Your task to perform on an android device: What is the price of a 12' ladder at Home Depot? Image 0: 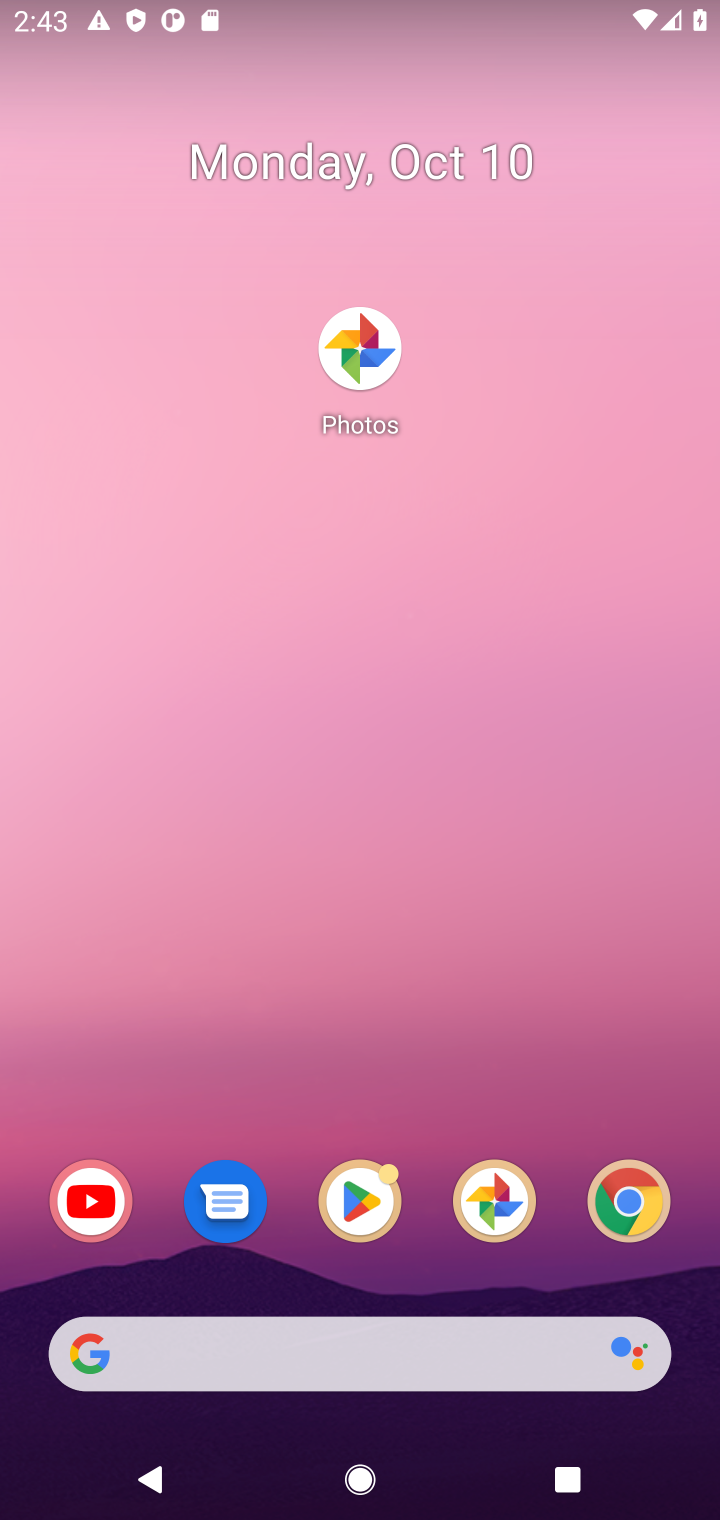
Step 0: click (332, 1377)
Your task to perform on an android device: What is the price of a 12' ladder at Home Depot? Image 1: 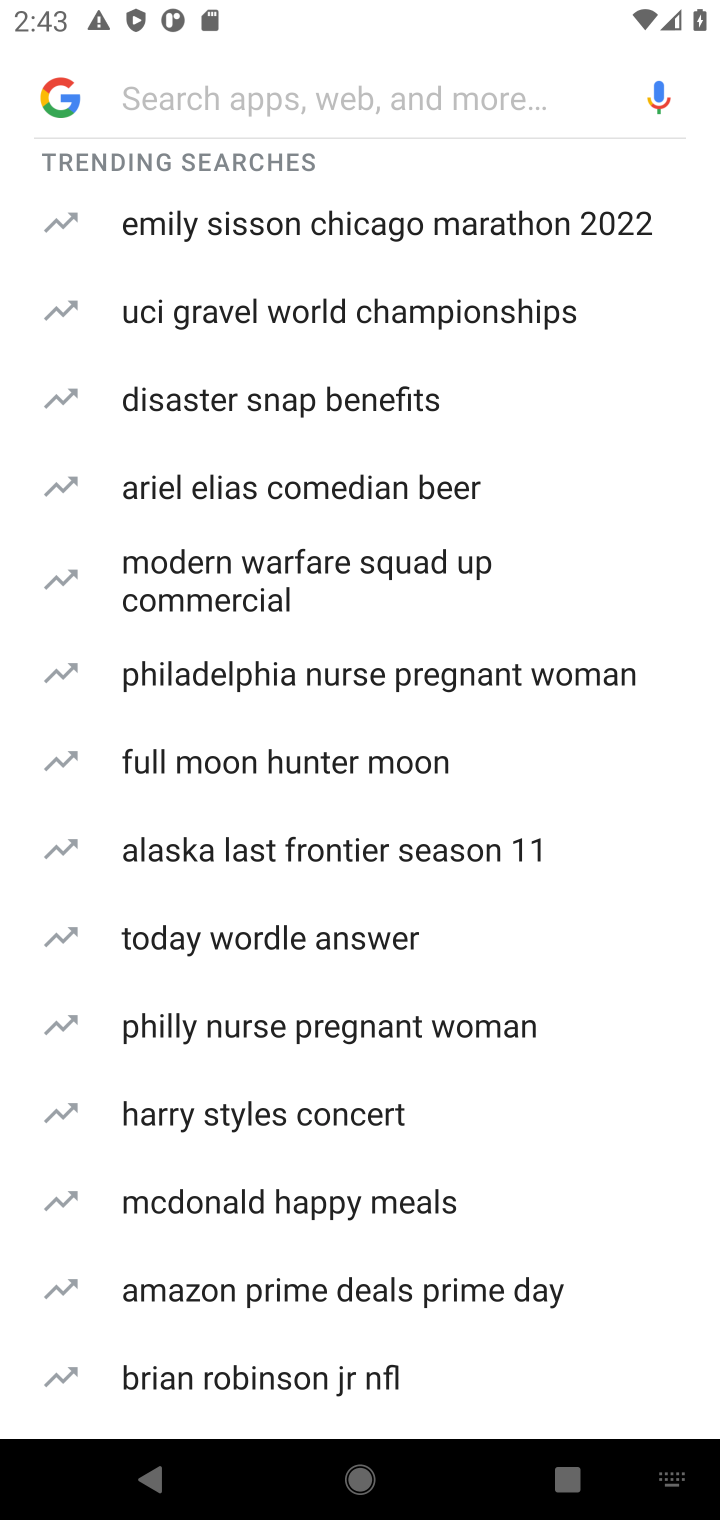
Step 1: type "home depot"
Your task to perform on an android device: What is the price of a 12' ladder at Home Depot? Image 2: 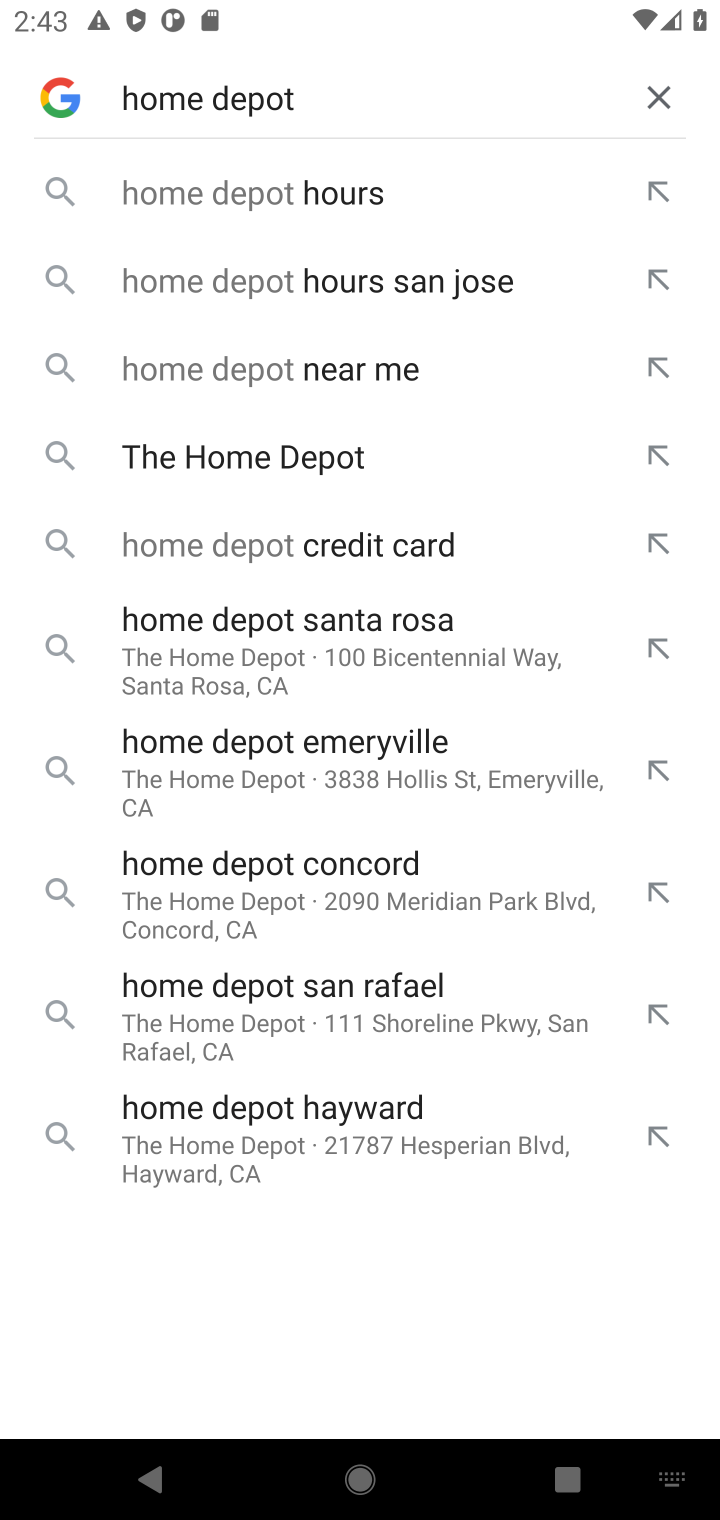
Step 2: click (266, 469)
Your task to perform on an android device: What is the price of a 12' ladder at Home Depot? Image 3: 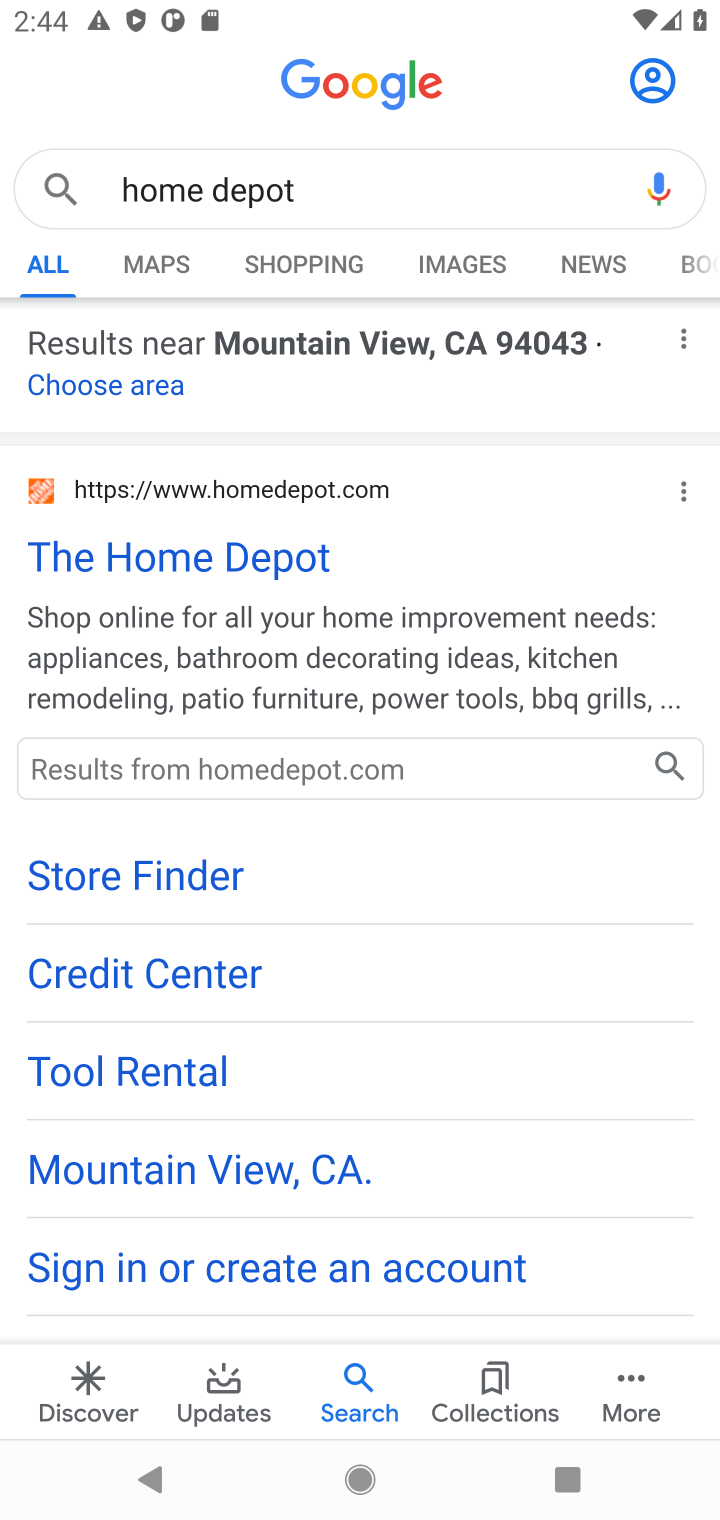
Step 3: click (249, 525)
Your task to perform on an android device: What is the price of a 12' ladder at Home Depot? Image 4: 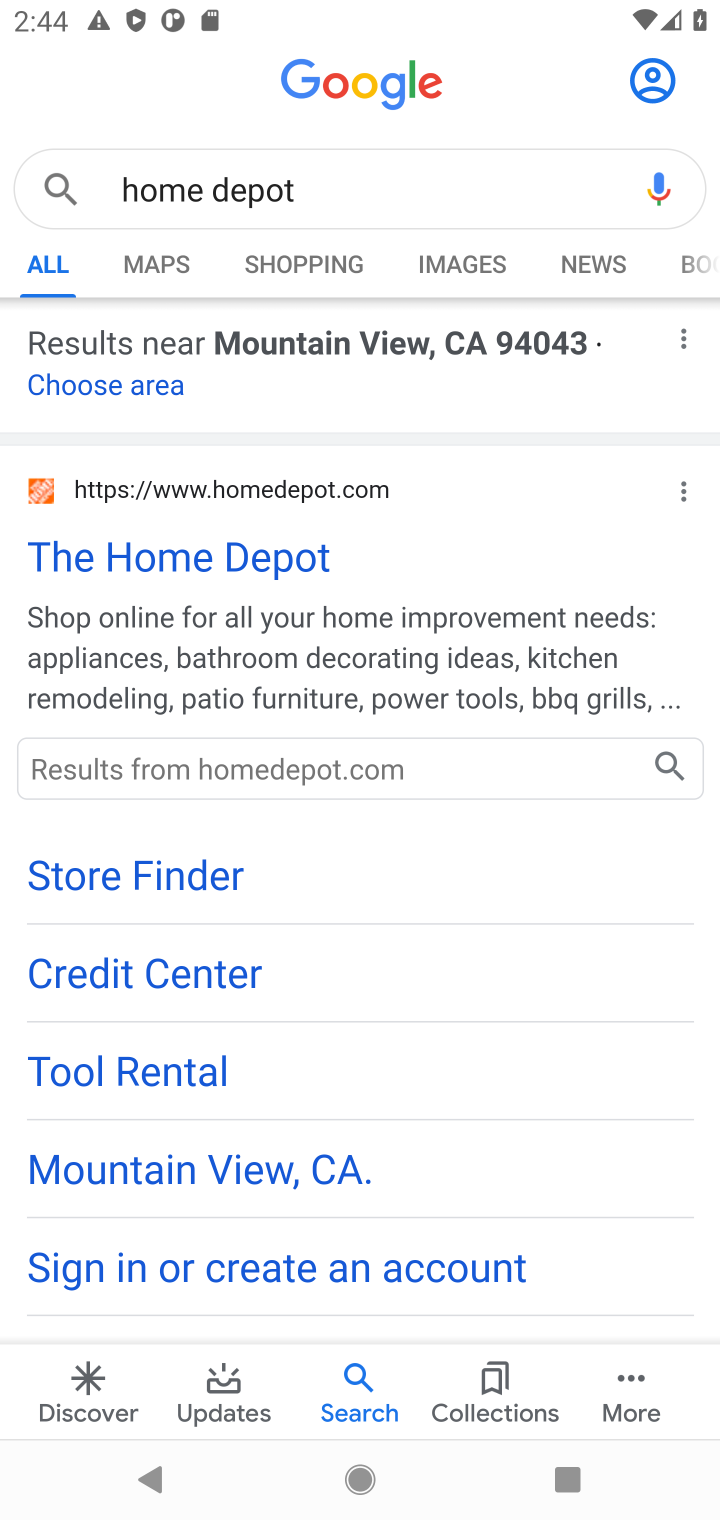
Step 4: click (251, 552)
Your task to perform on an android device: What is the price of a 12' ladder at Home Depot? Image 5: 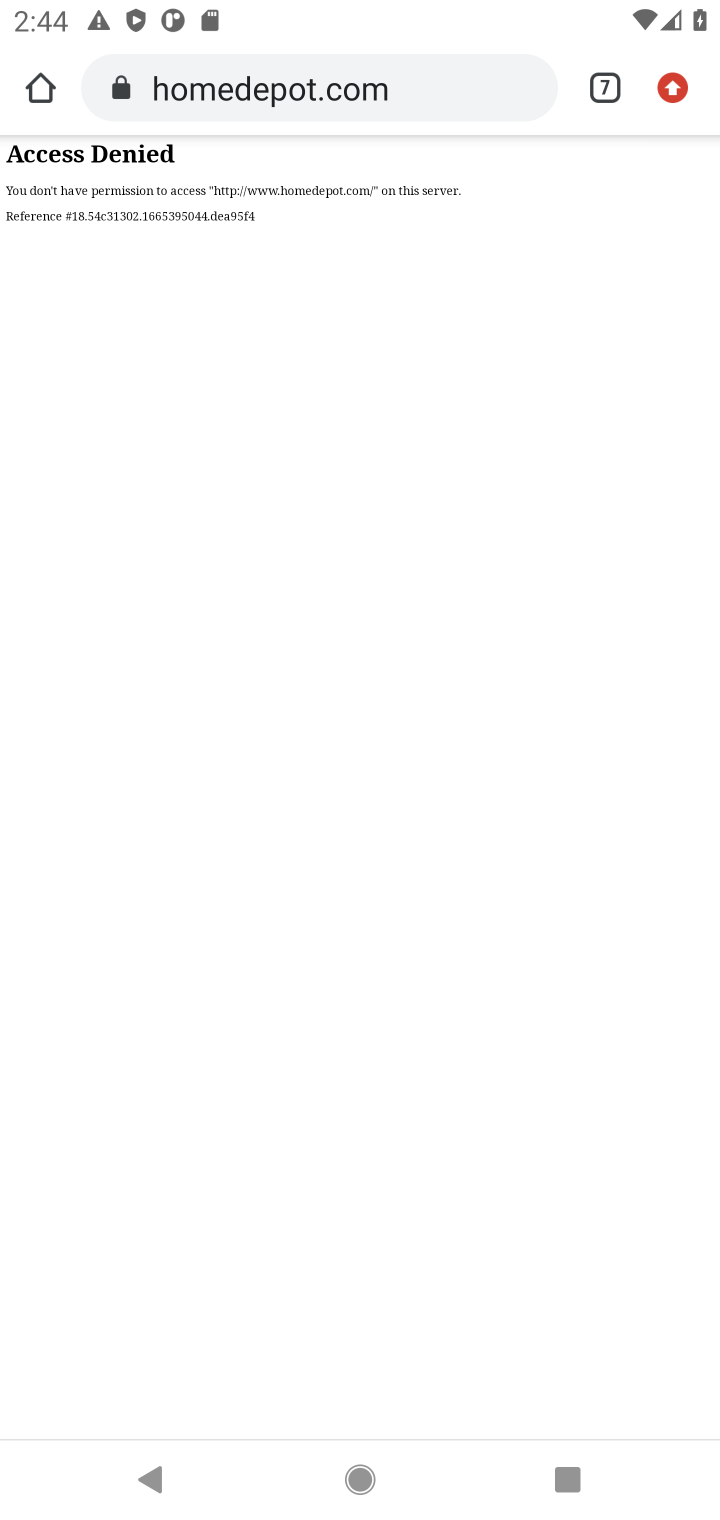
Step 5: press back button
Your task to perform on an android device: What is the price of a 12' ladder at Home Depot? Image 6: 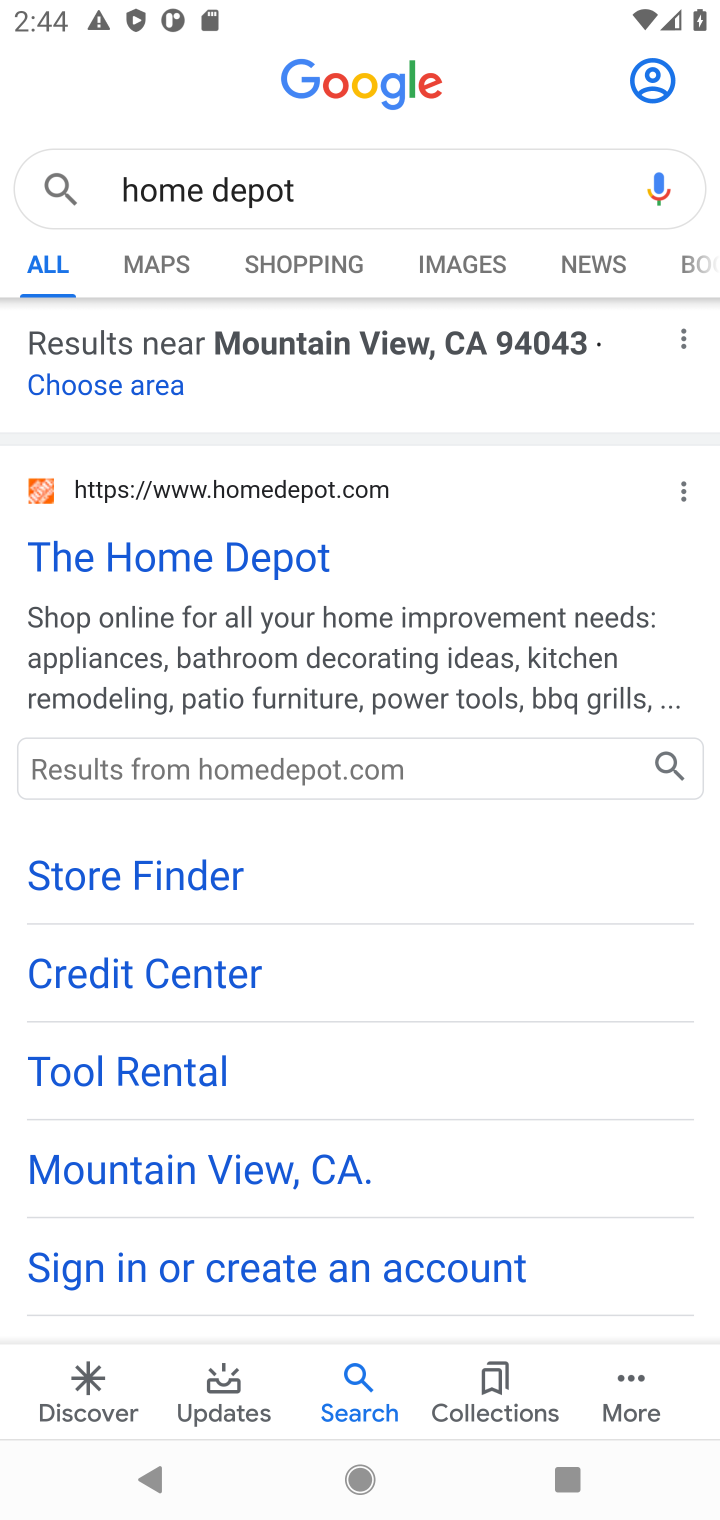
Step 6: drag from (392, 874) to (424, 663)
Your task to perform on an android device: What is the price of a 12' ladder at Home Depot? Image 7: 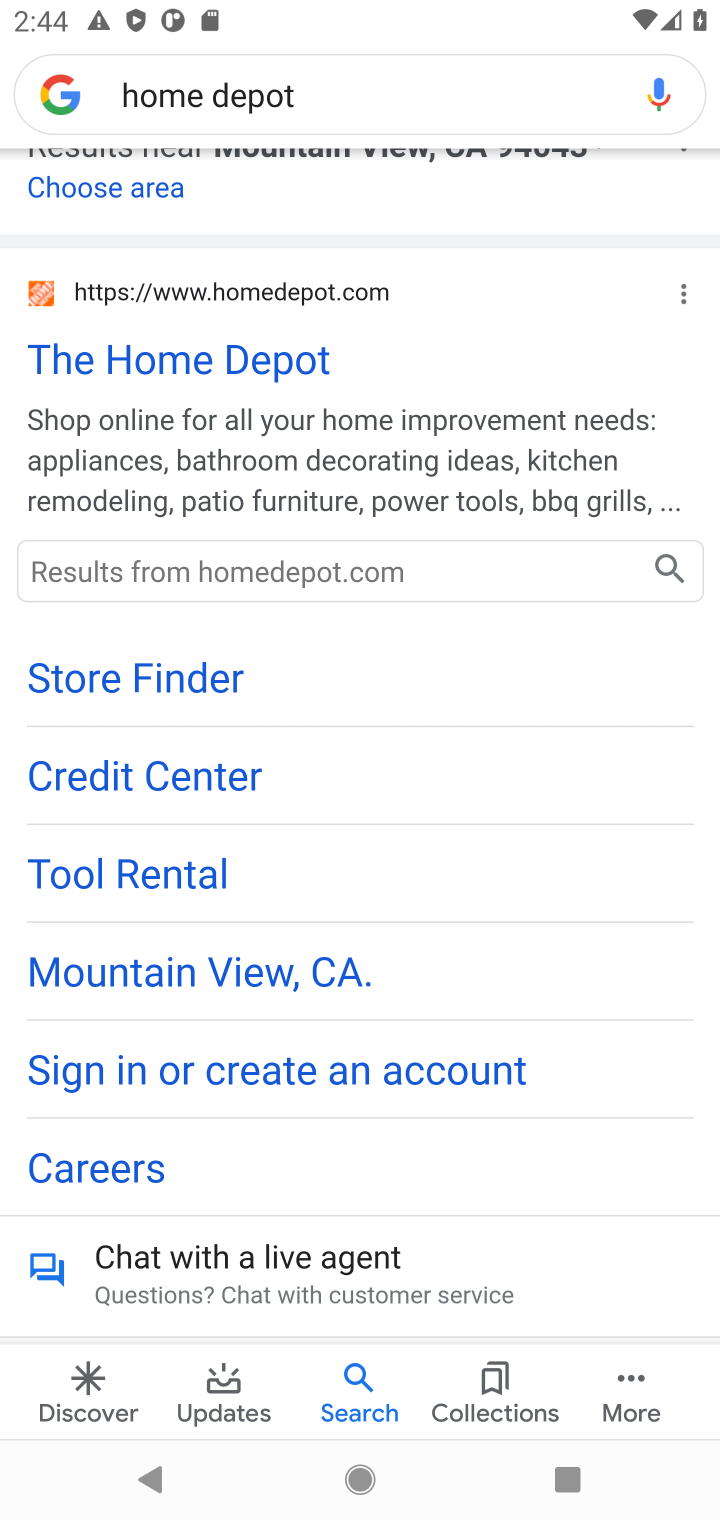
Step 7: drag from (472, 1156) to (509, 688)
Your task to perform on an android device: What is the price of a 12' ladder at Home Depot? Image 8: 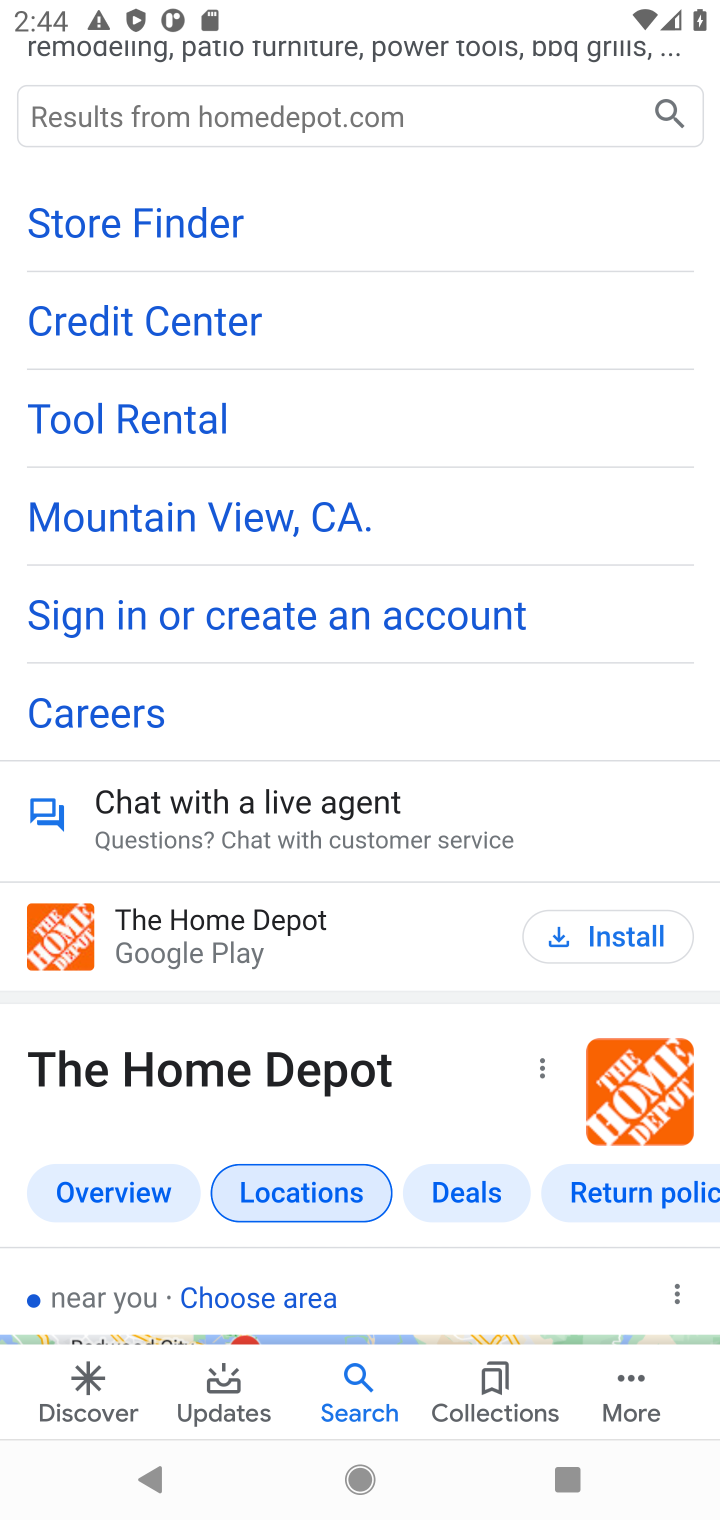
Step 8: drag from (417, 1096) to (426, 393)
Your task to perform on an android device: What is the price of a 12' ladder at Home Depot? Image 9: 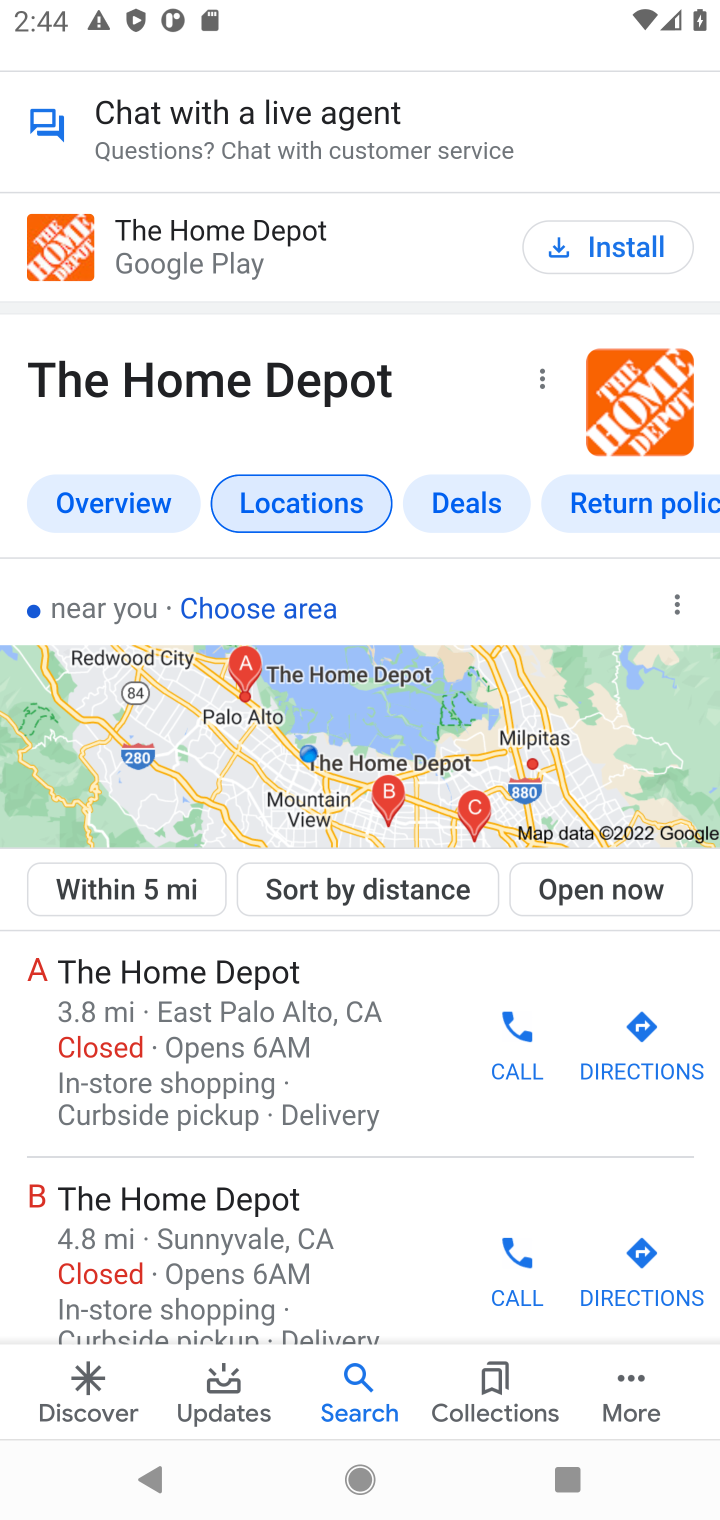
Step 9: drag from (262, 453) to (262, 818)
Your task to perform on an android device: What is the price of a 12' ladder at Home Depot? Image 10: 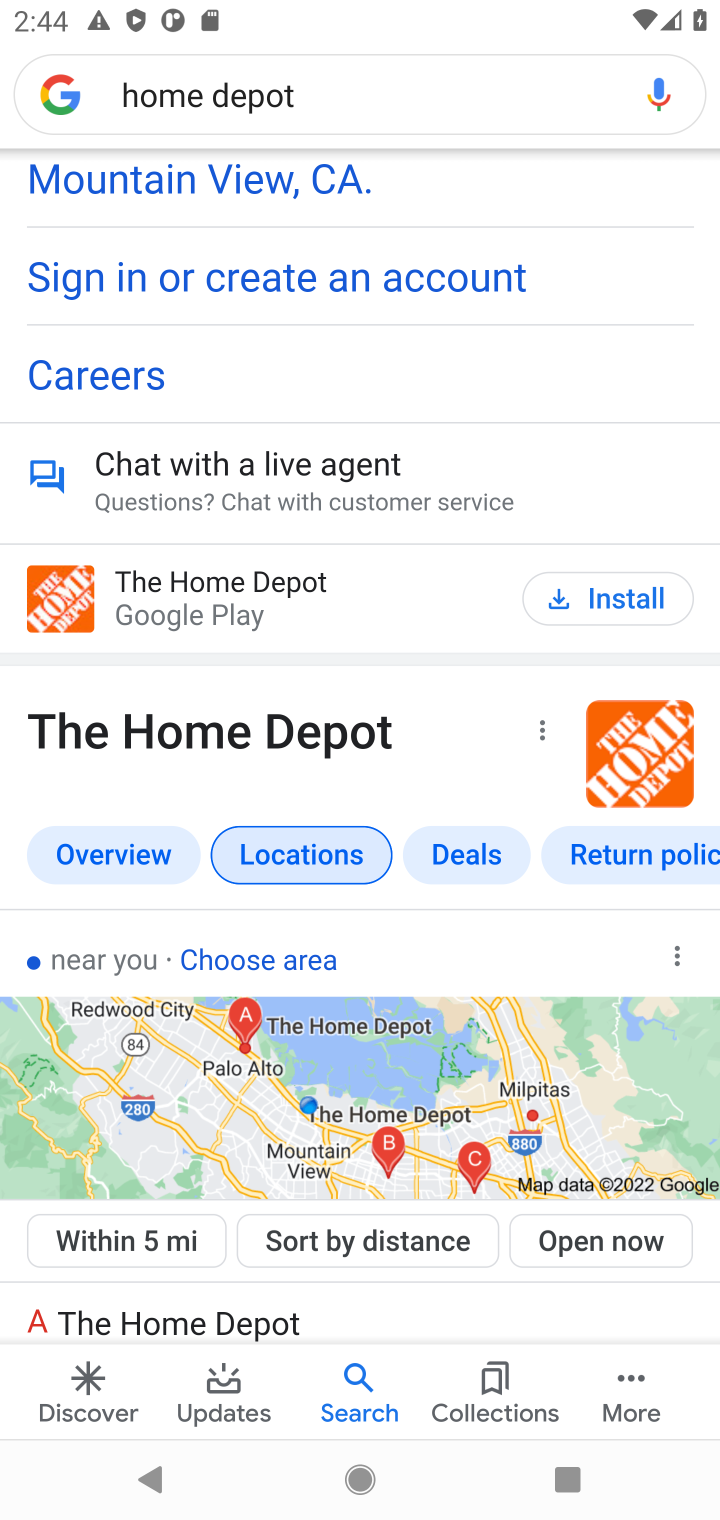
Step 10: click (351, 412)
Your task to perform on an android device: What is the price of a 12' ladder at Home Depot? Image 11: 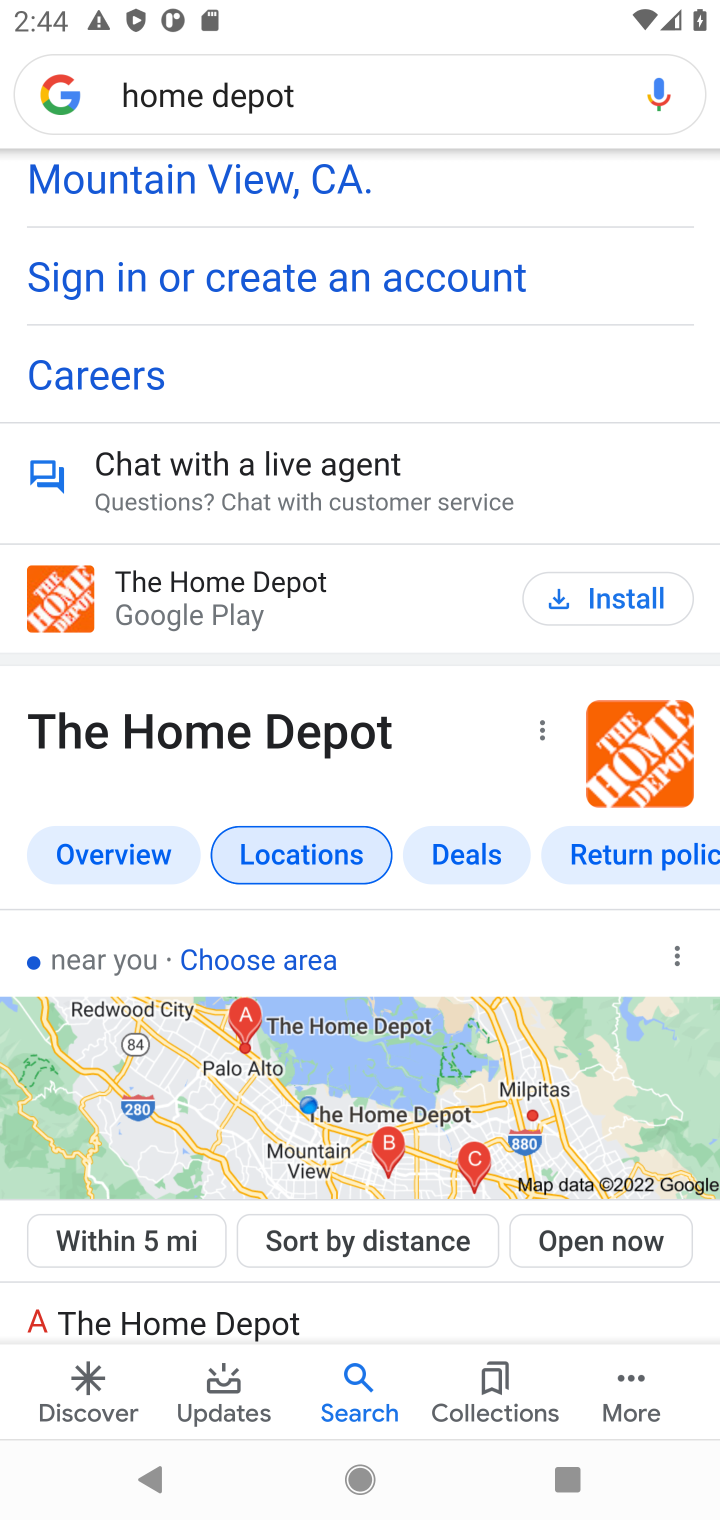
Step 11: click (430, 88)
Your task to perform on an android device: What is the price of a 12' ladder at Home Depot? Image 12: 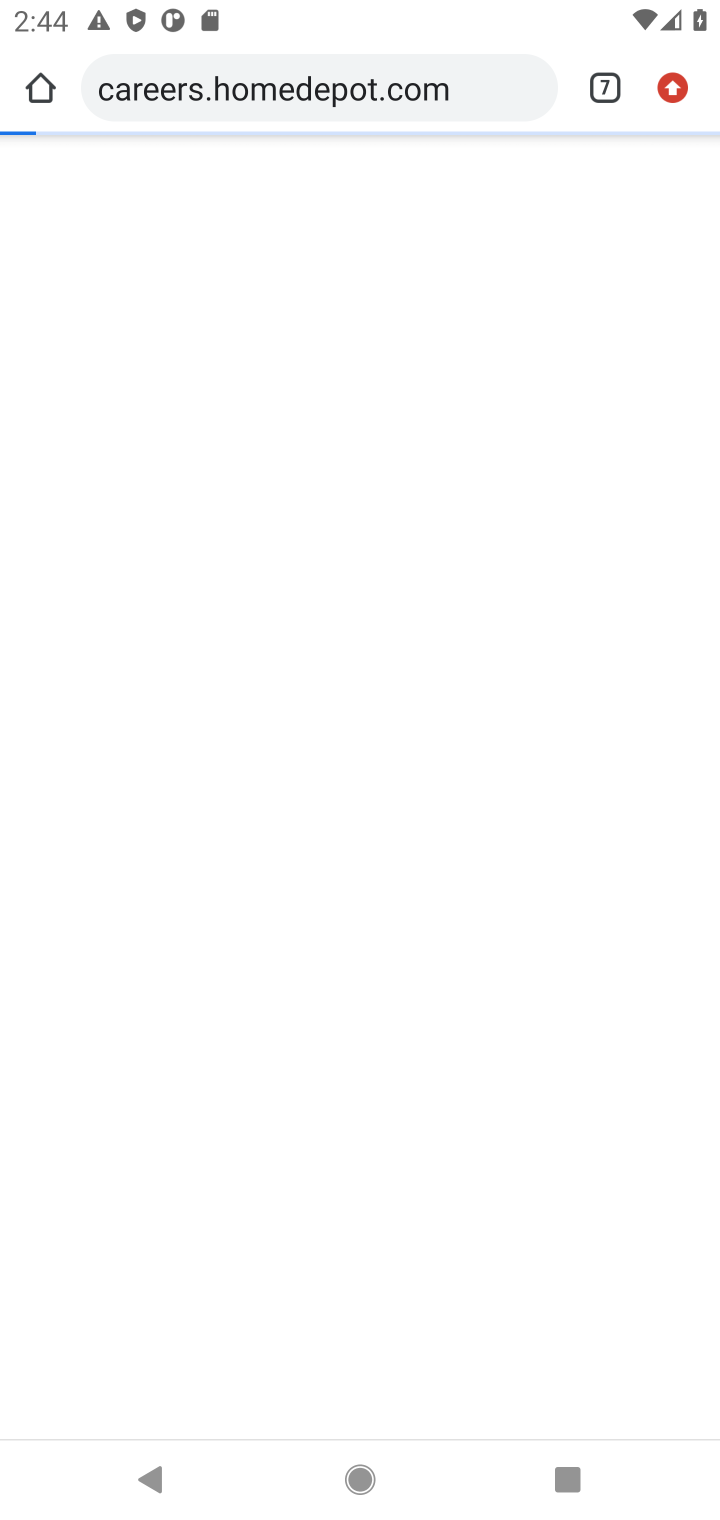
Step 12: click (391, 90)
Your task to perform on an android device: What is the price of a 12' ladder at Home Depot? Image 13: 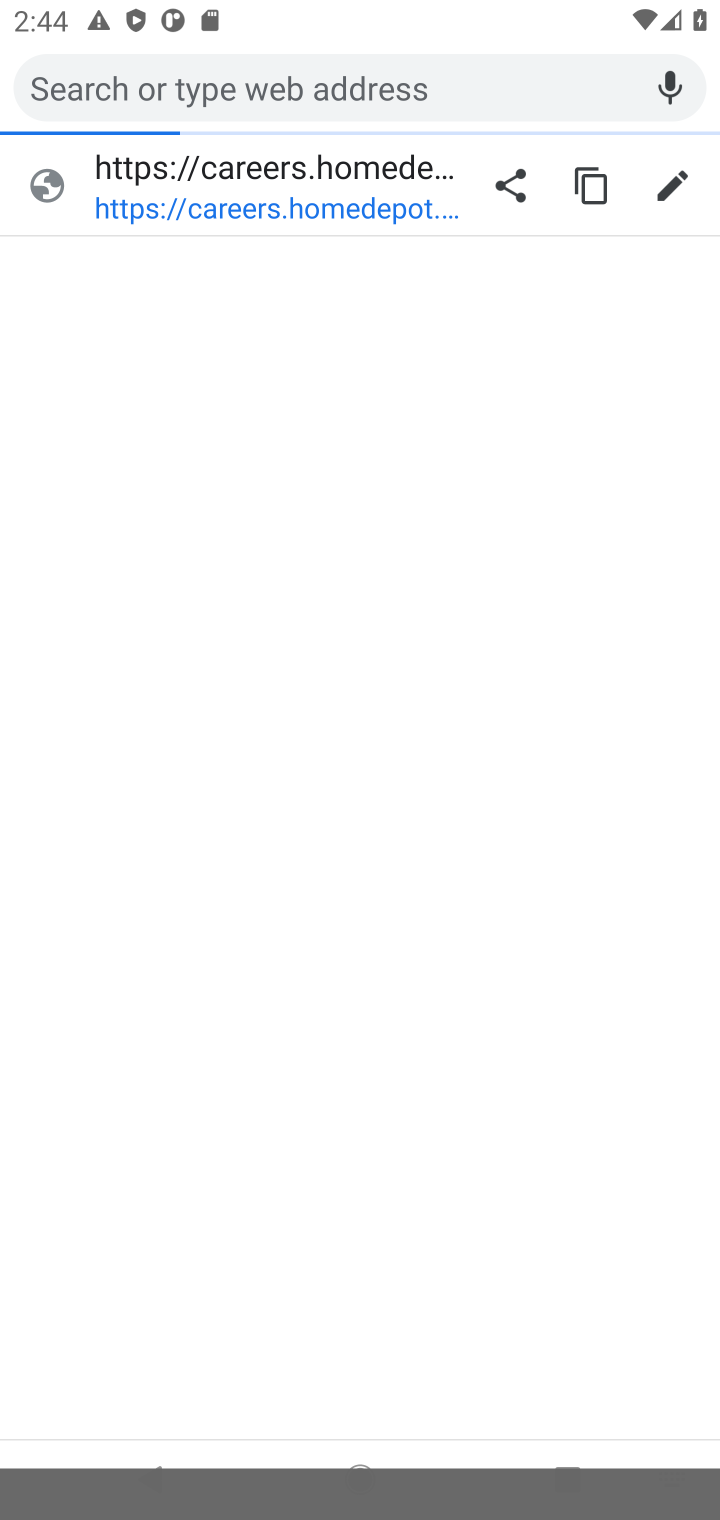
Step 13: click (422, 84)
Your task to perform on an android device: What is the price of a 12' ladder at Home Depot? Image 14: 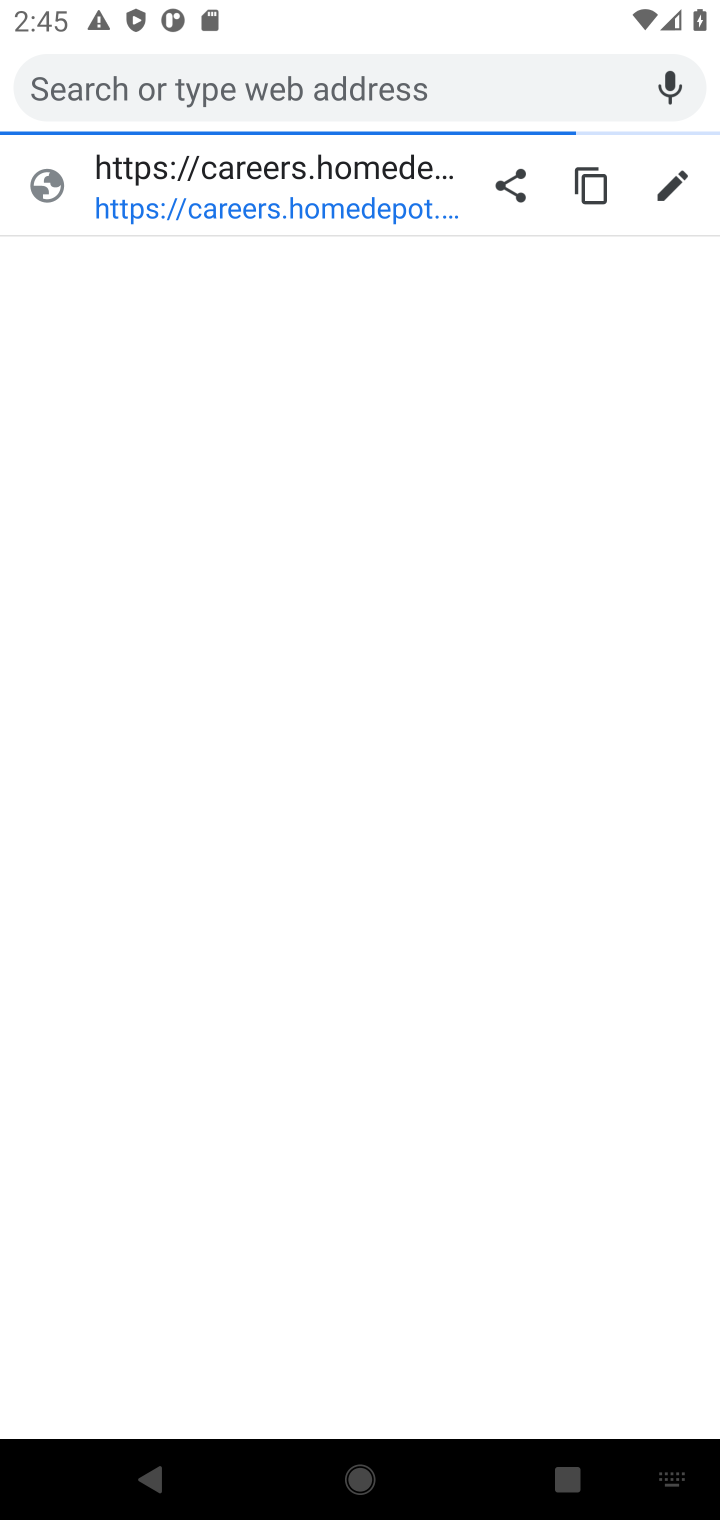
Step 14: click (245, 1518)
Your task to perform on an android device: What is the price of a 12' ladder at Home Depot? Image 15: 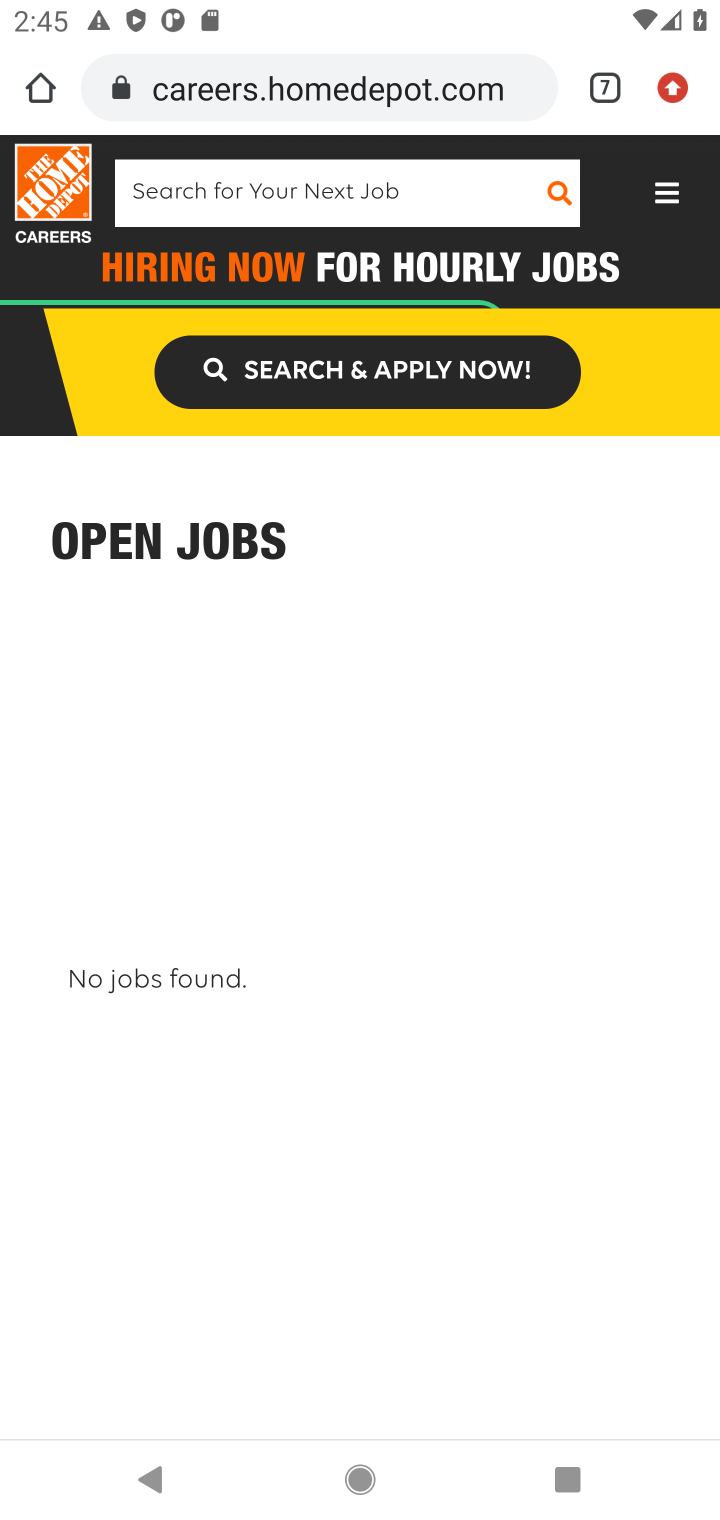
Step 15: type "price of a 12' ladder at Home Depot"
Your task to perform on an android device: What is the price of a 12' ladder at Home Depot? Image 16: 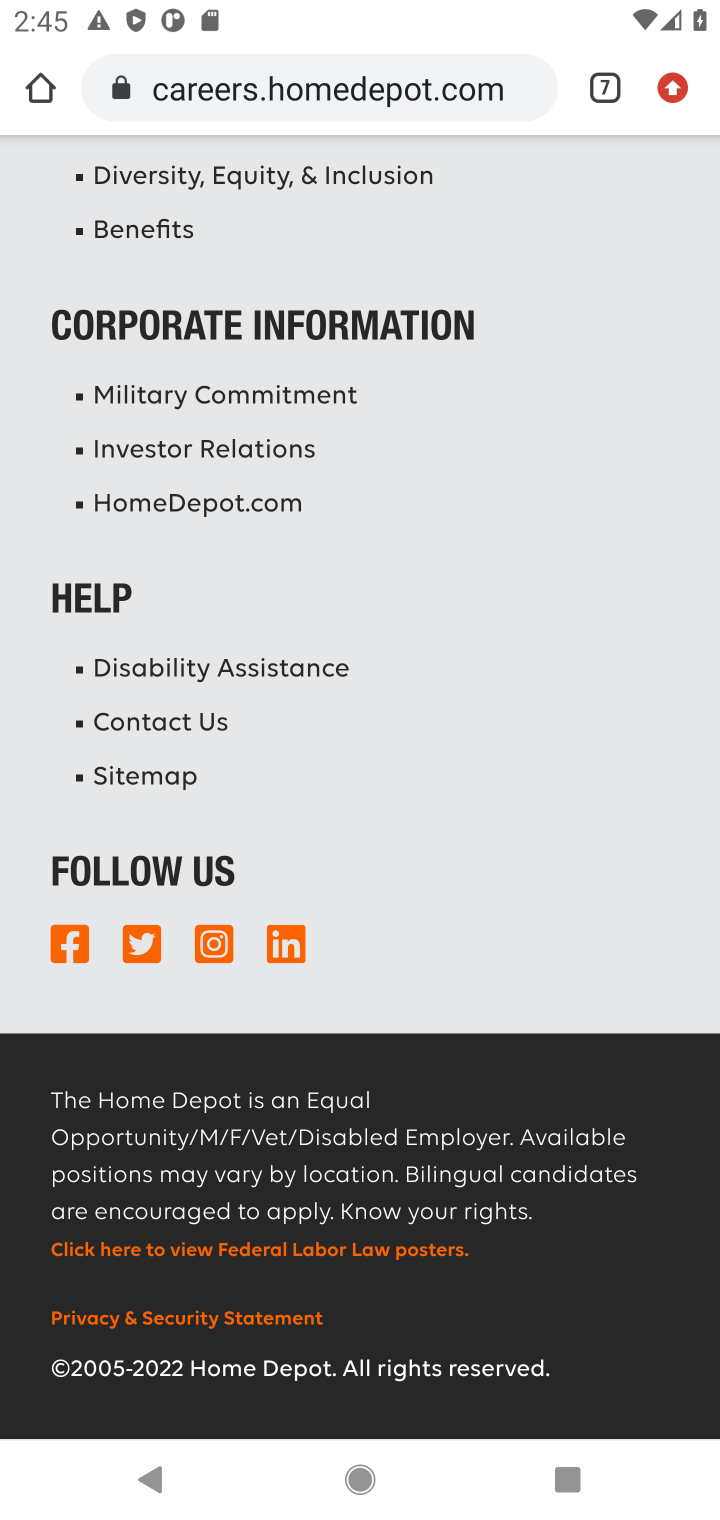
Step 16: click (299, 89)
Your task to perform on an android device: What is the price of a 12' ladder at Home Depot? Image 17: 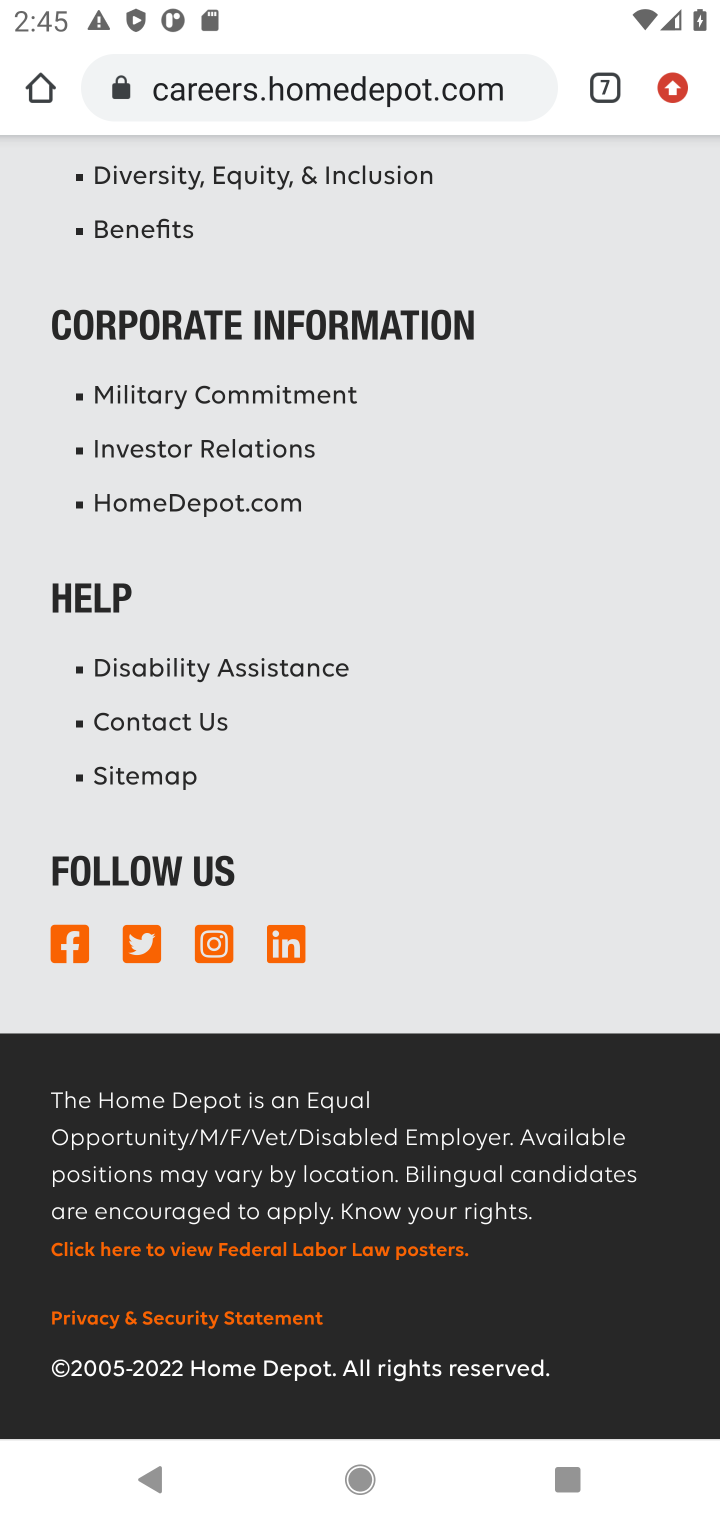
Step 17: click (299, 87)
Your task to perform on an android device: What is the price of a 12' ladder at Home Depot? Image 18: 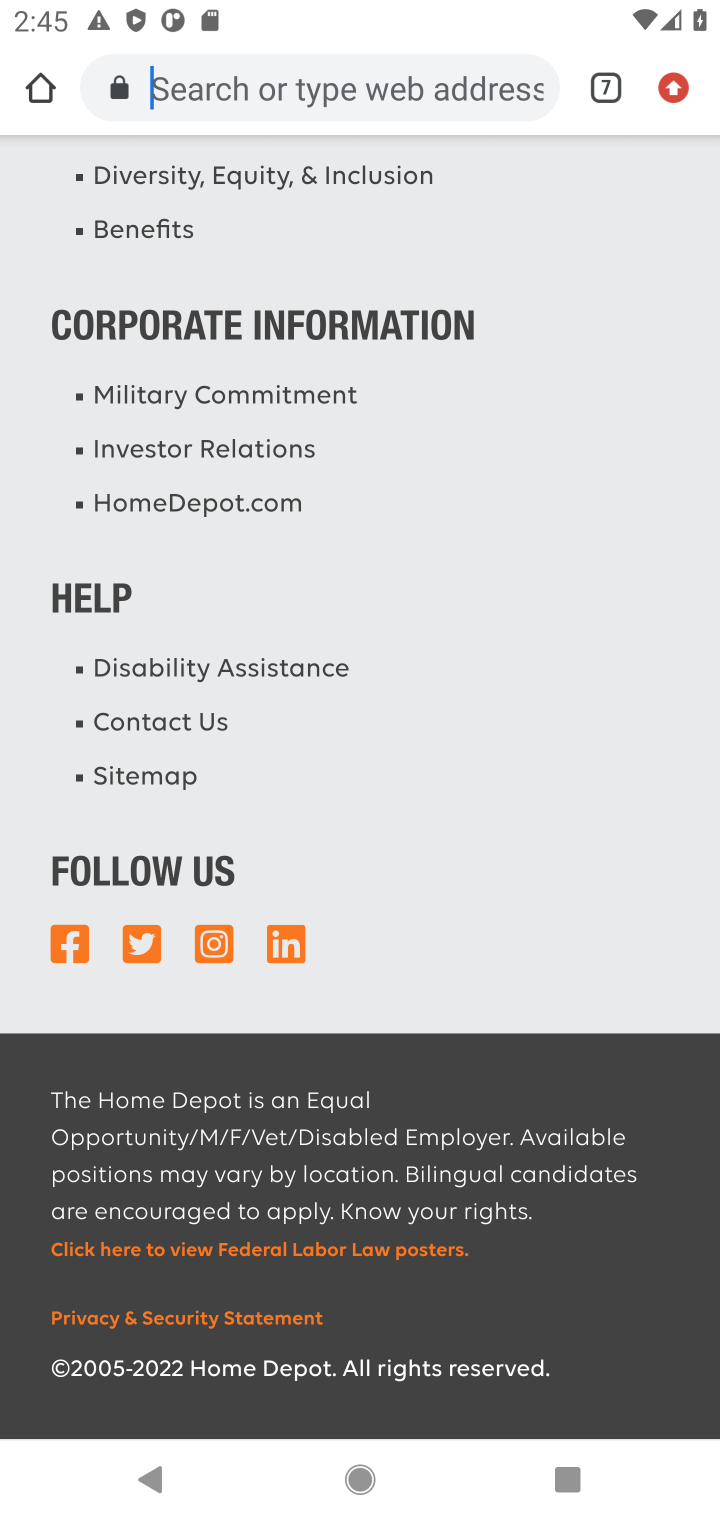
Step 18: click (299, 87)
Your task to perform on an android device: What is the price of a 12' ladder at Home Depot? Image 19: 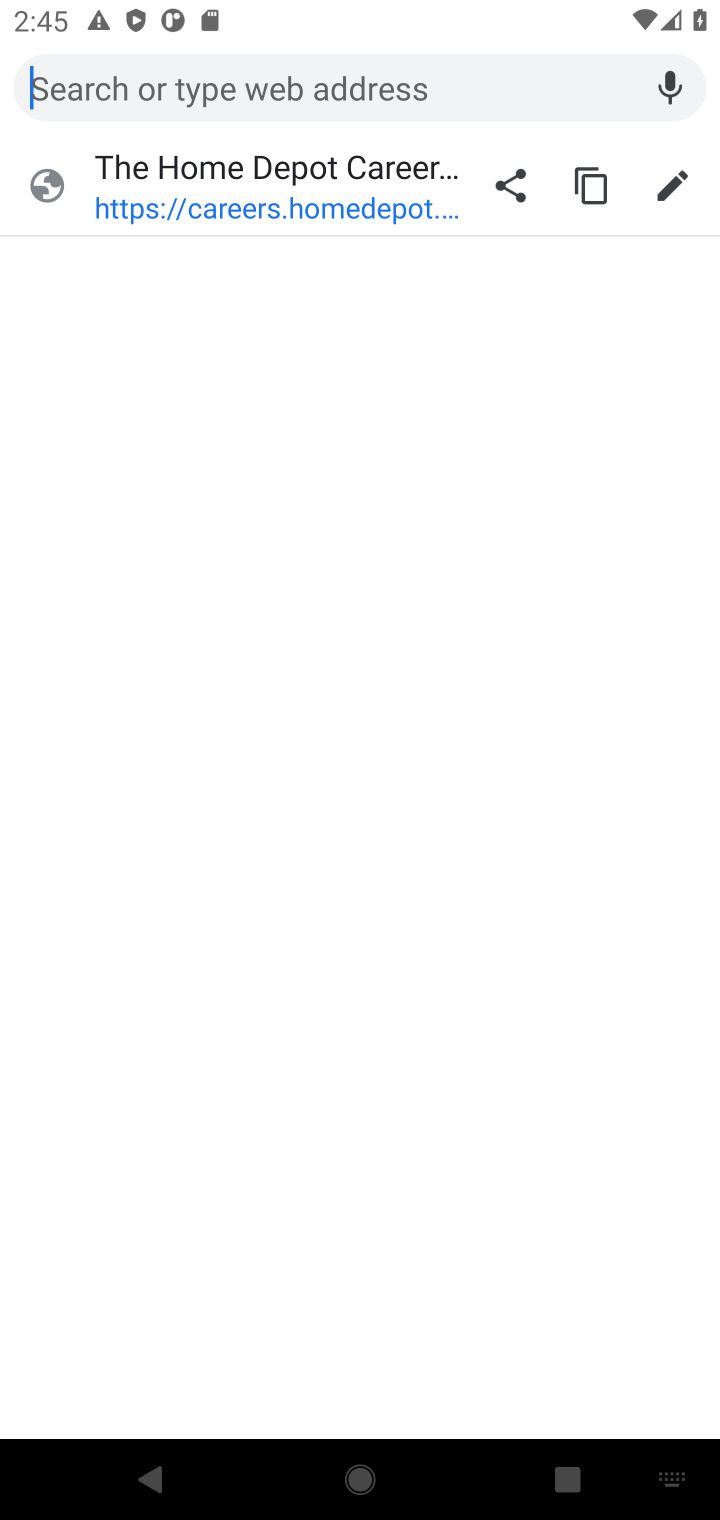
Step 19: type "price of a 12' ladder at Home Depot"
Your task to perform on an android device: What is the price of a 12' ladder at Home Depot? Image 20: 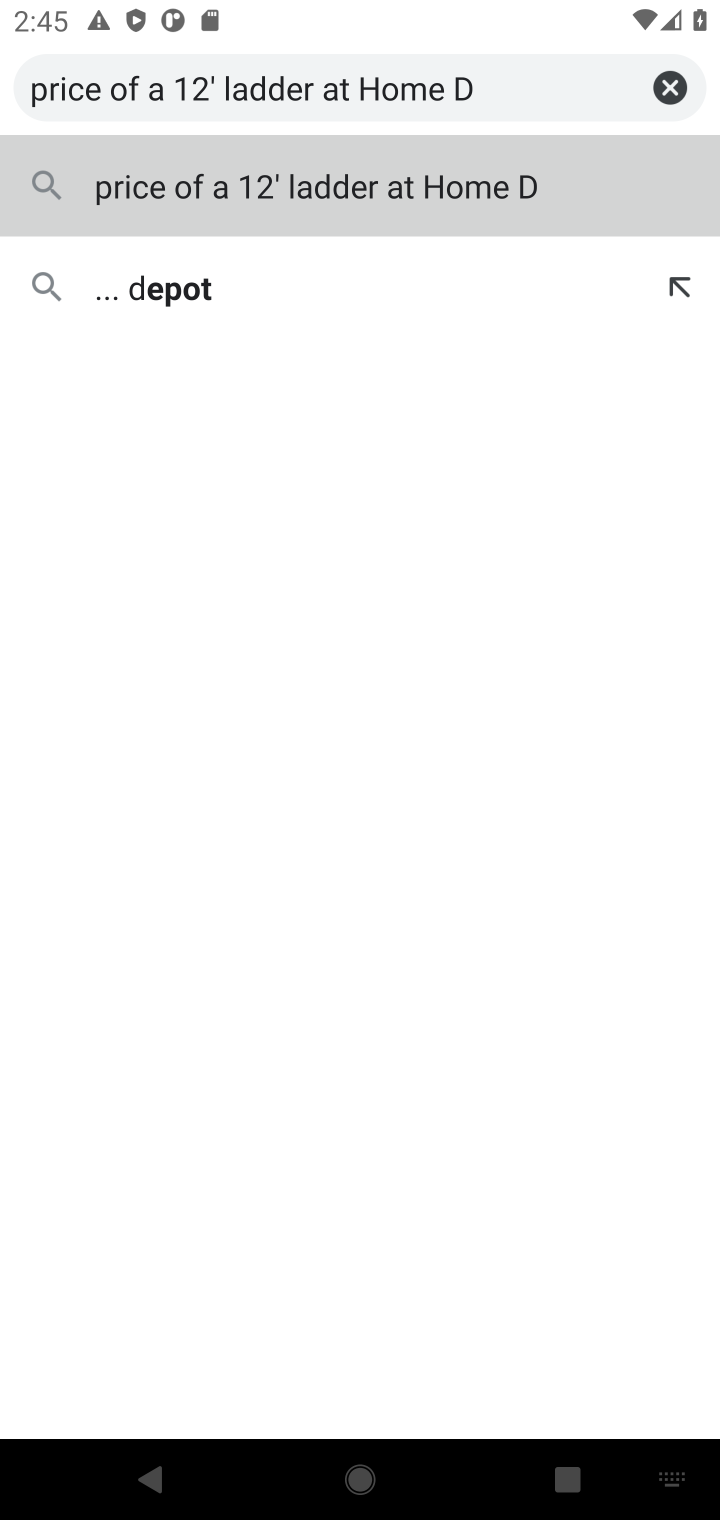
Step 20: type ""
Your task to perform on an android device: What is the price of a 12' ladder at Home Depot? Image 21: 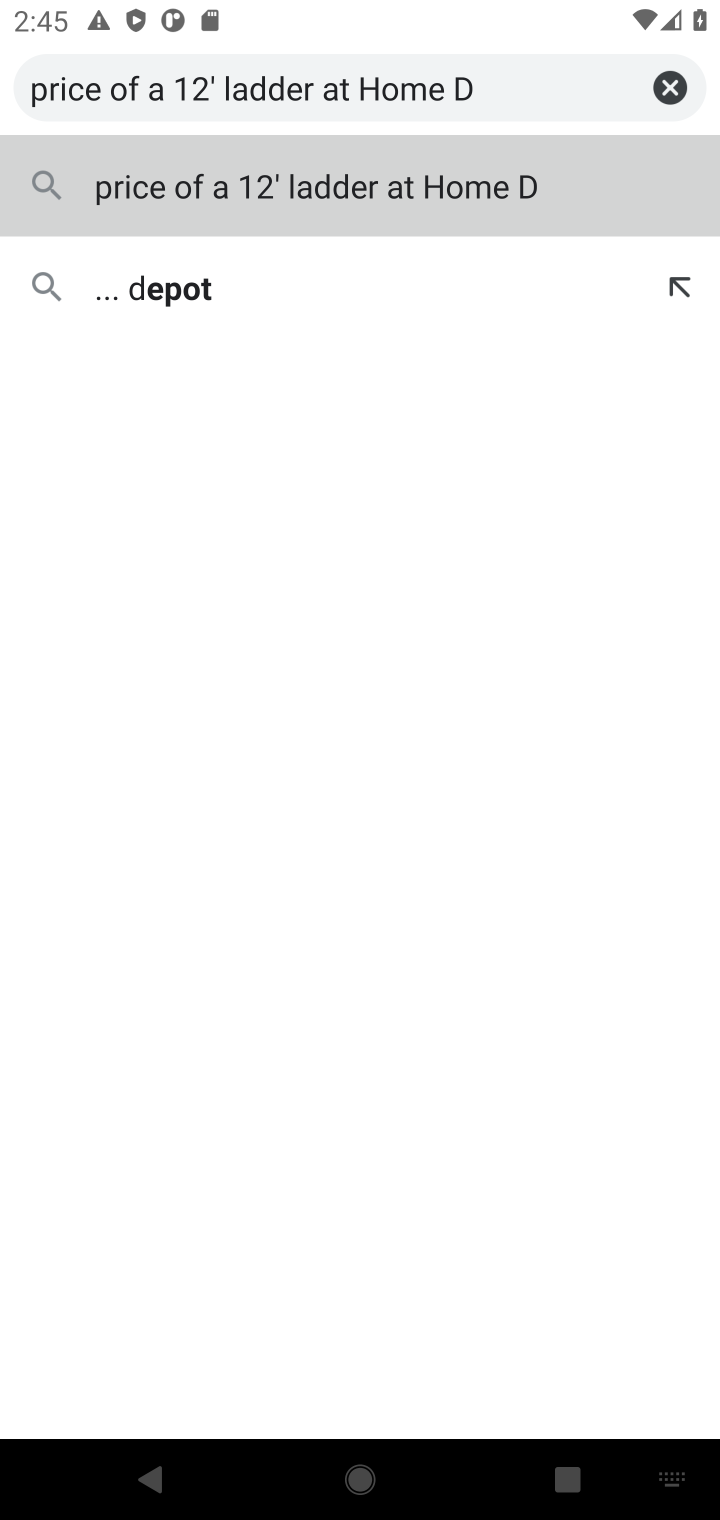
Step 21: click (533, 190)
Your task to perform on an android device: What is the price of a 12' ladder at Home Depot? Image 22: 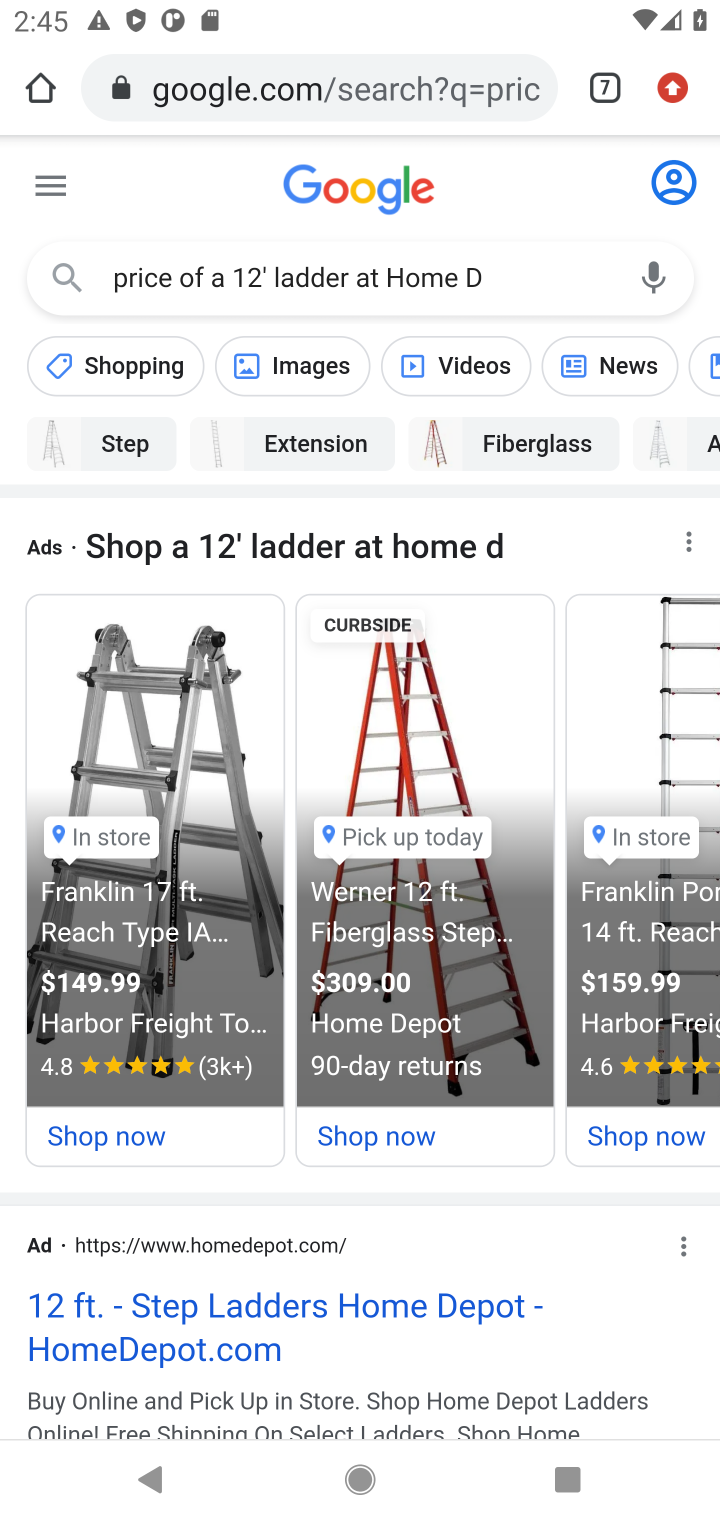
Step 22: click (242, 1337)
Your task to perform on an android device: What is the price of a 12' ladder at Home Depot? Image 23: 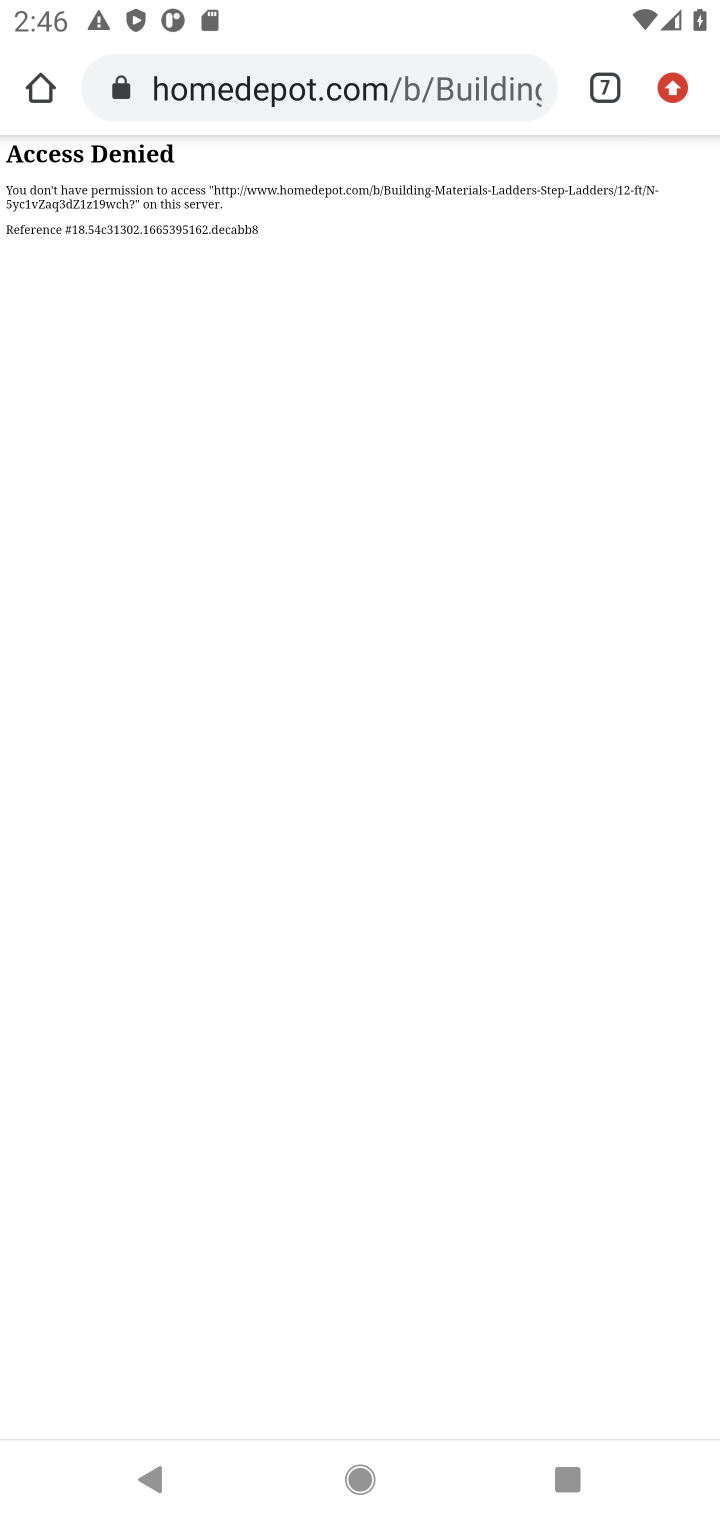
Step 23: task complete